Your task to perform on an android device: Open the phone app and click the voicemail tab. Image 0: 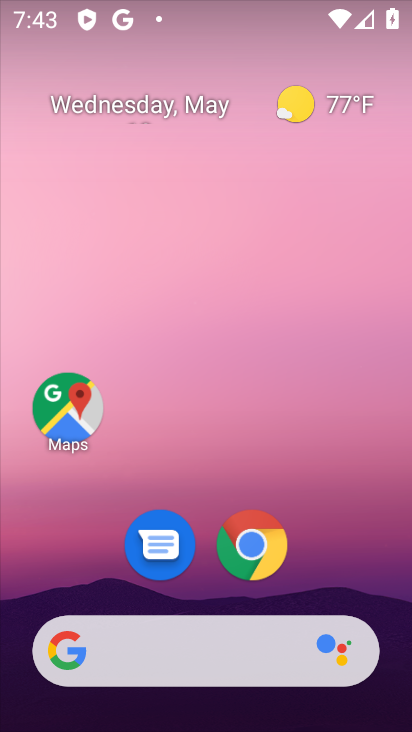
Step 0: drag from (333, 574) to (208, 74)
Your task to perform on an android device: Open the phone app and click the voicemail tab. Image 1: 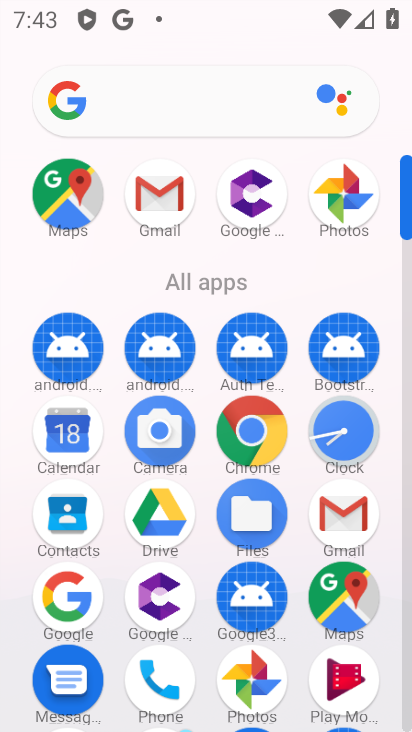
Step 1: drag from (197, 578) to (206, 275)
Your task to perform on an android device: Open the phone app and click the voicemail tab. Image 2: 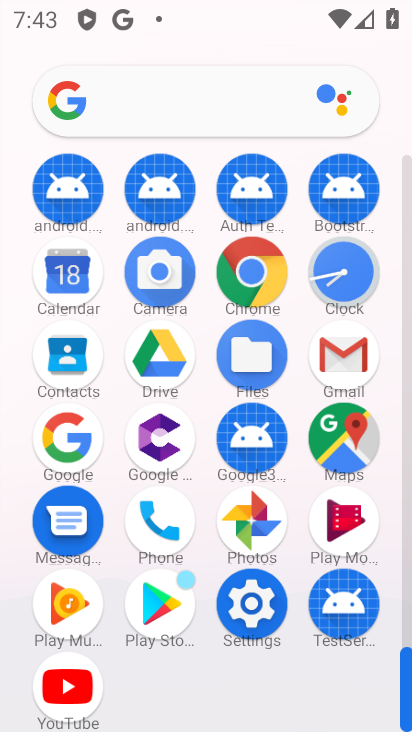
Step 2: click (154, 521)
Your task to perform on an android device: Open the phone app and click the voicemail tab. Image 3: 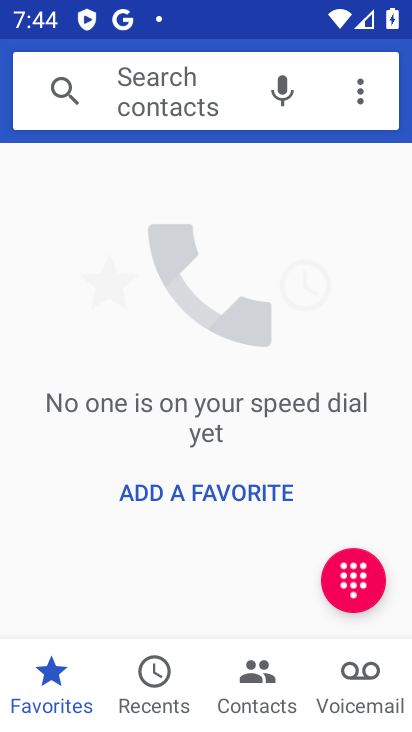
Step 3: click (362, 678)
Your task to perform on an android device: Open the phone app and click the voicemail tab. Image 4: 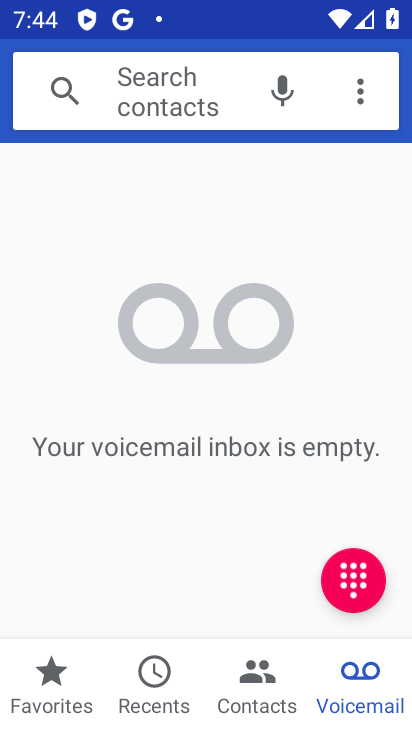
Step 4: task complete